Your task to perform on an android device: open sync settings in chrome Image 0: 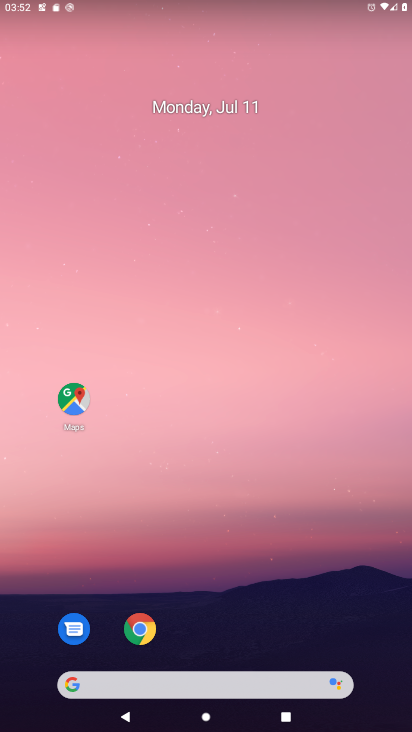
Step 0: click (140, 622)
Your task to perform on an android device: open sync settings in chrome Image 1: 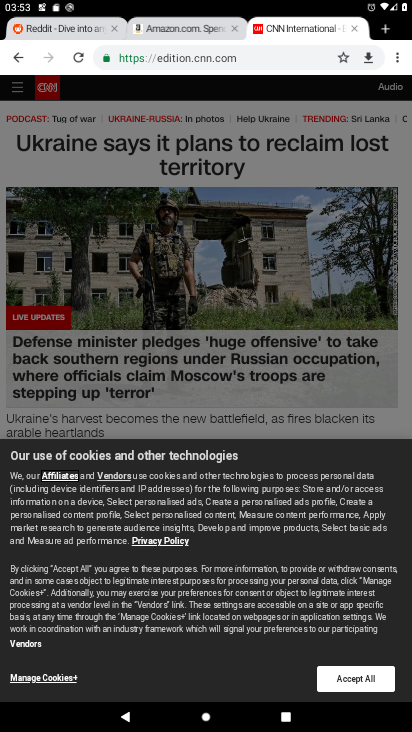
Step 1: drag from (397, 58) to (278, 348)
Your task to perform on an android device: open sync settings in chrome Image 2: 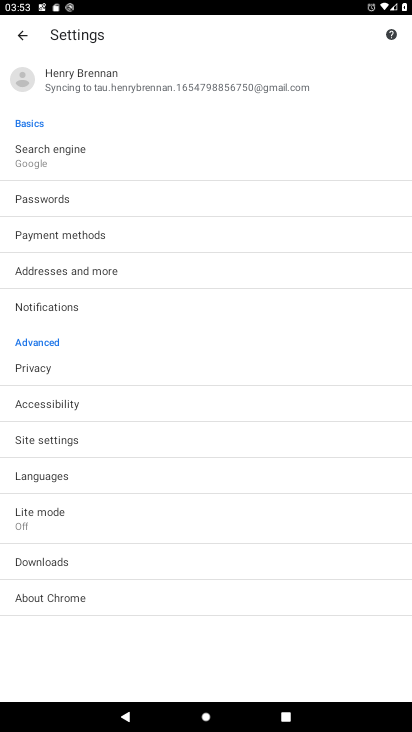
Step 2: click (118, 94)
Your task to perform on an android device: open sync settings in chrome Image 3: 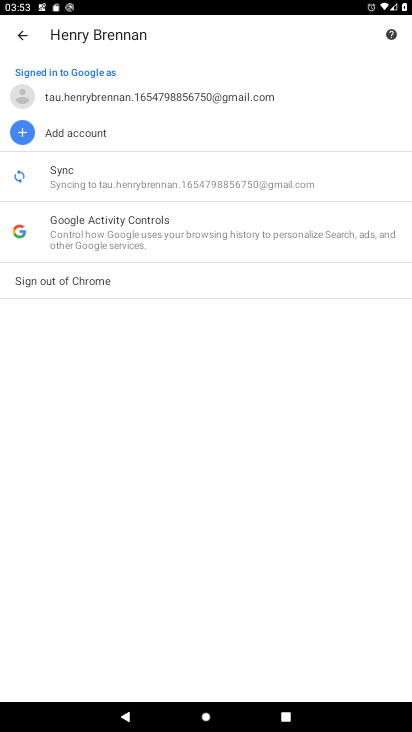
Step 3: task complete